Your task to perform on an android device: Open display settings Image 0: 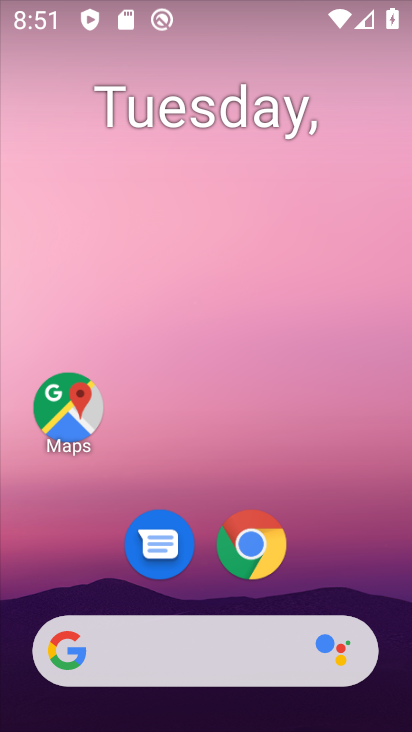
Step 0: drag from (217, 583) to (268, 45)
Your task to perform on an android device: Open display settings Image 1: 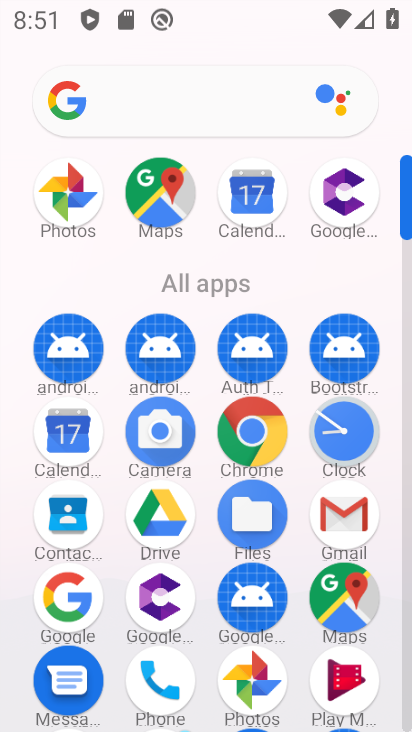
Step 1: drag from (212, 575) to (219, 57)
Your task to perform on an android device: Open display settings Image 2: 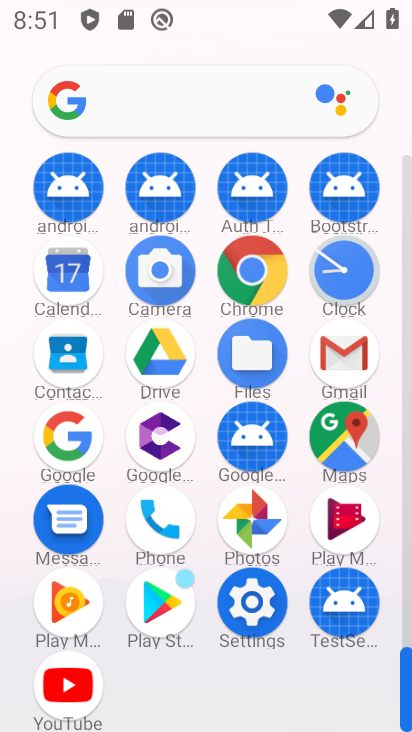
Step 2: click (256, 617)
Your task to perform on an android device: Open display settings Image 3: 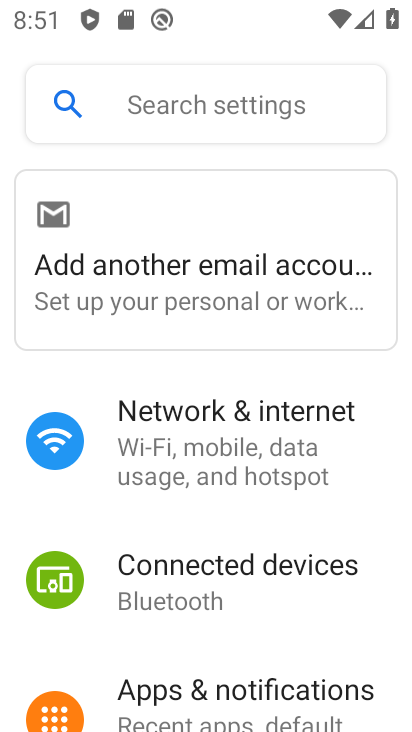
Step 3: drag from (256, 617) to (211, 287)
Your task to perform on an android device: Open display settings Image 4: 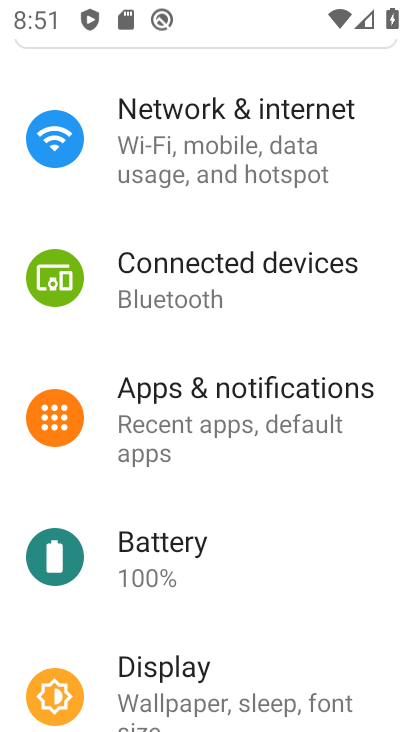
Step 4: click (204, 671)
Your task to perform on an android device: Open display settings Image 5: 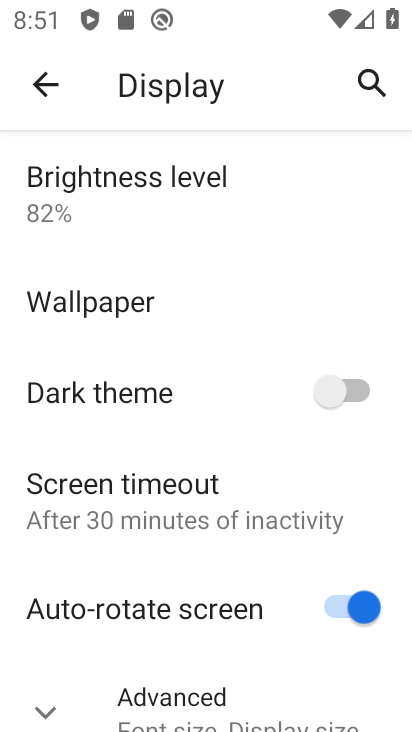
Step 5: task complete